Your task to perform on an android device: turn smart compose on in the gmail app Image 0: 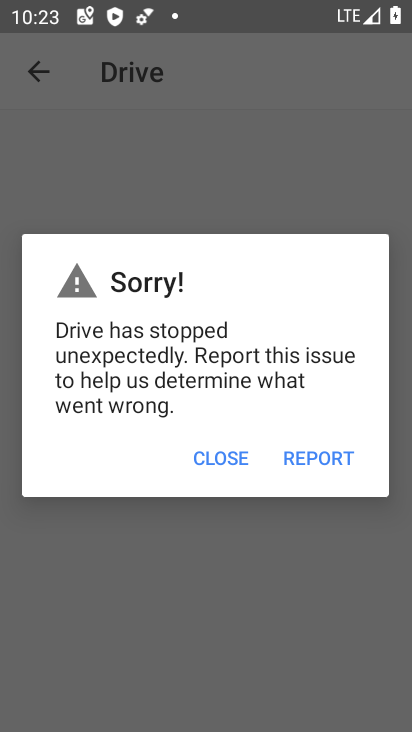
Step 0: press home button
Your task to perform on an android device: turn smart compose on in the gmail app Image 1: 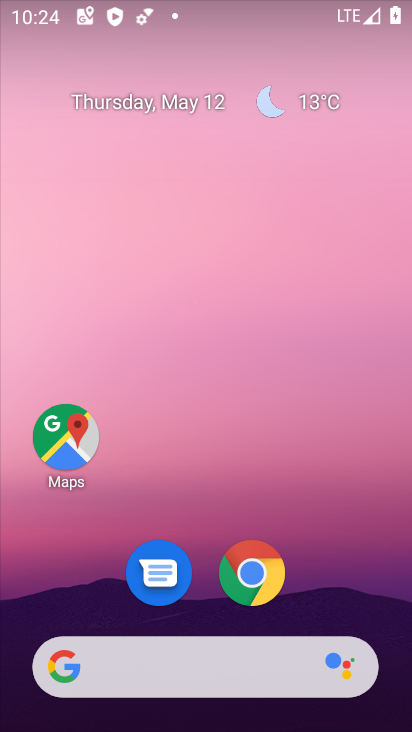
Step 1: drag from (222, 619) to (354, 96)
Your task to perform on an android device: turn smart compose on in the gmail app Image 2: 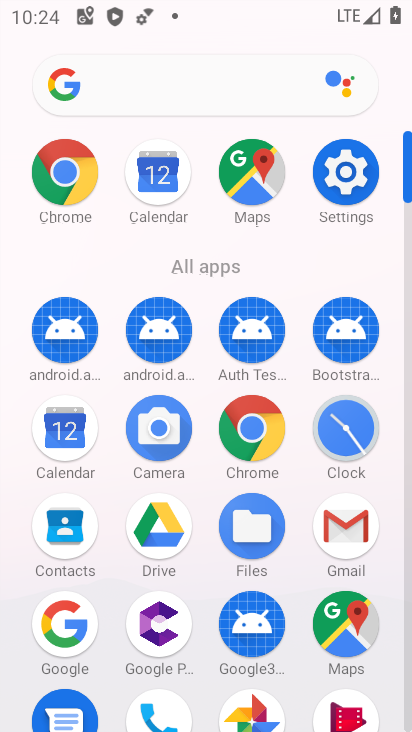
Step 2: click (336, 521)
Your task to perform on an android device: turn smart compose on in the gmail app Image 3: 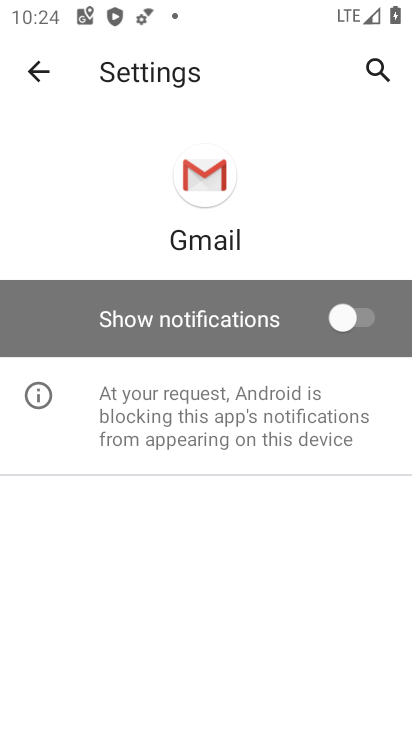
Step 3: click (16, 91)
Your task to perform on an android device: turn smart compose on in the gmail app Image 4: 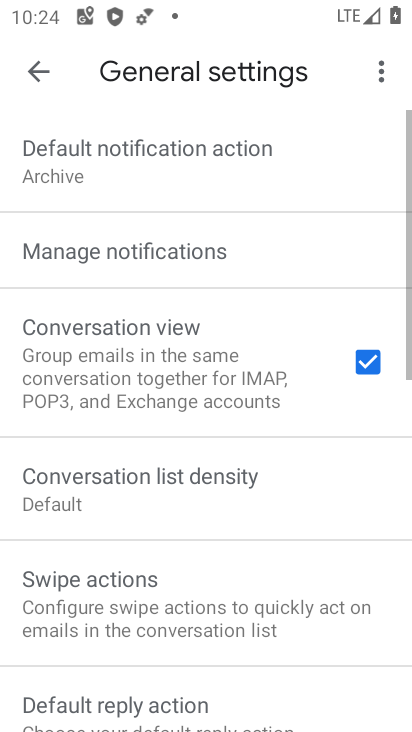
Step 4: click (34, 70)
Your task to perform on an android device: turn smart compose on in the gmail app Image 5: 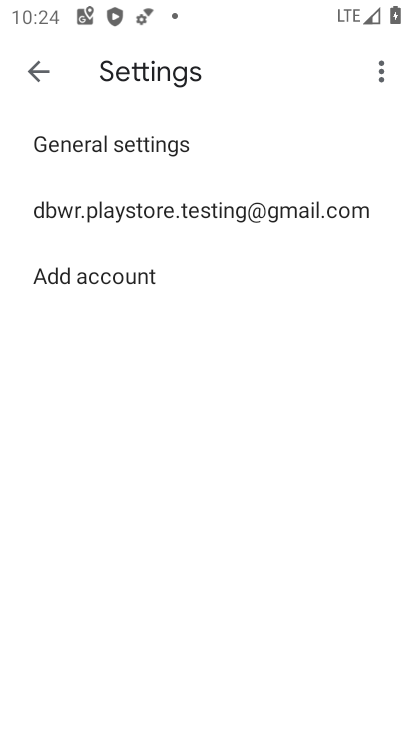
Step 5: click (122, 206)
Your task to perform on an android device: turn smart compose on in the gmail app Image 6: 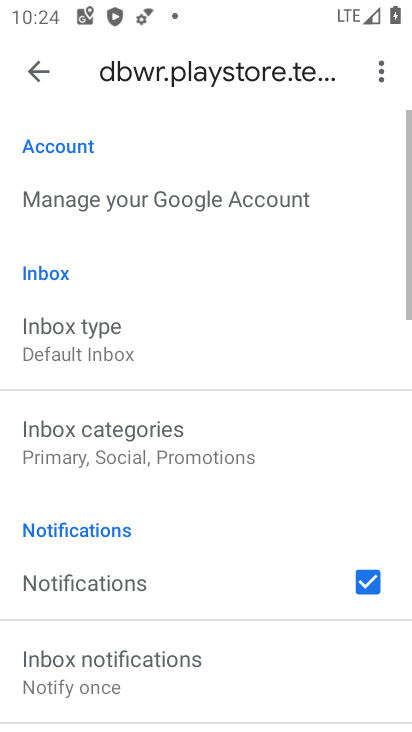
Step 6: task complete